Your task to perform on an android device: refresh tabs in the chrome app Image 0: 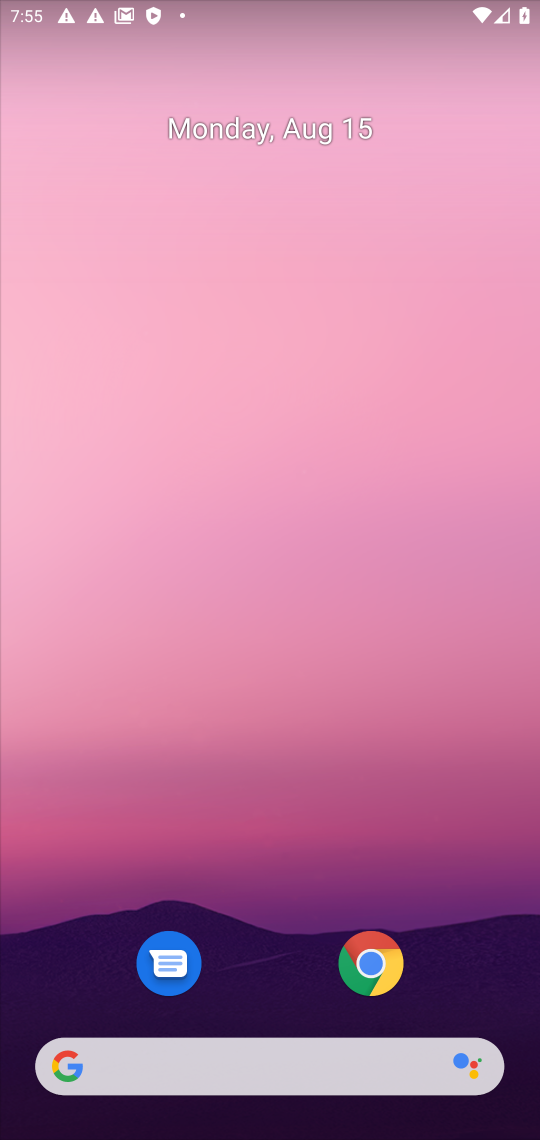
Step 0: click (374, 956)
Your task to perform on an android device: refresh tabs in the chrome app Image 1: 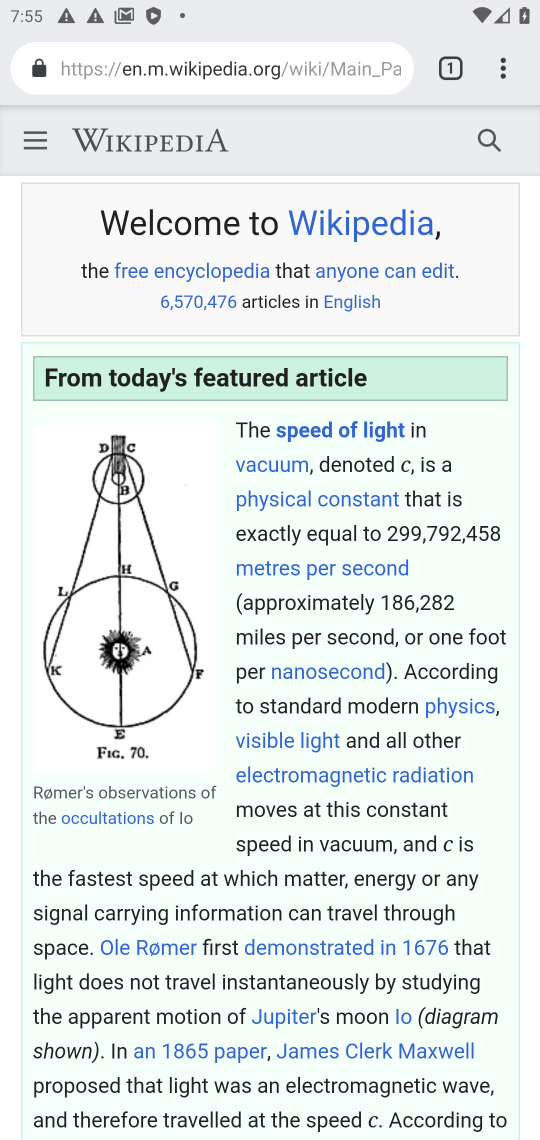
Step 1: click (515, 63)
Your task to perform on an android device: refresh tabs in the chrome app Image 2: 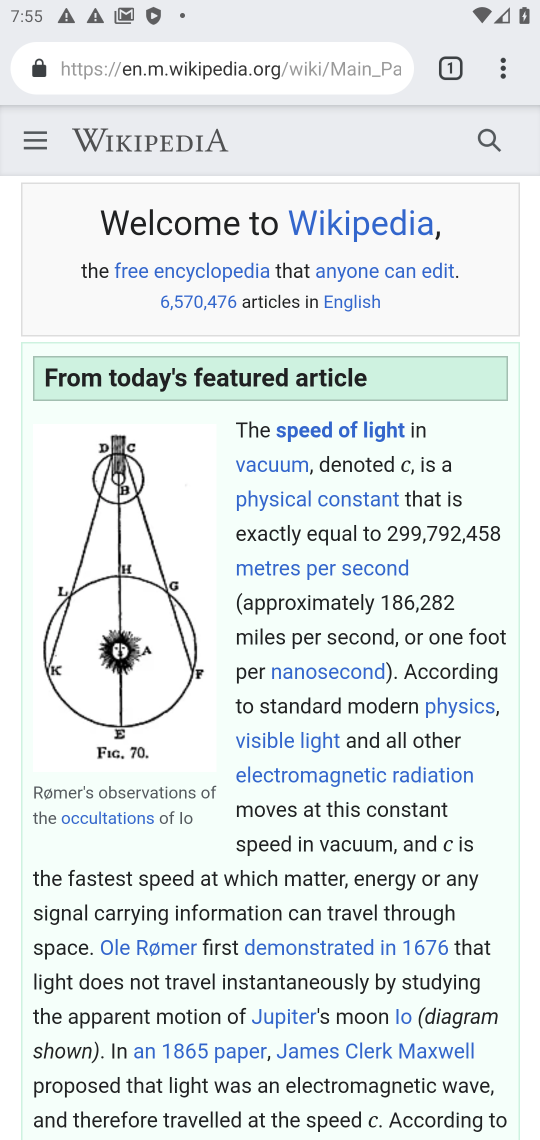
Step 2: task complete